Your task to perform on an android device: refresh tabs in the chrome app Image 0: 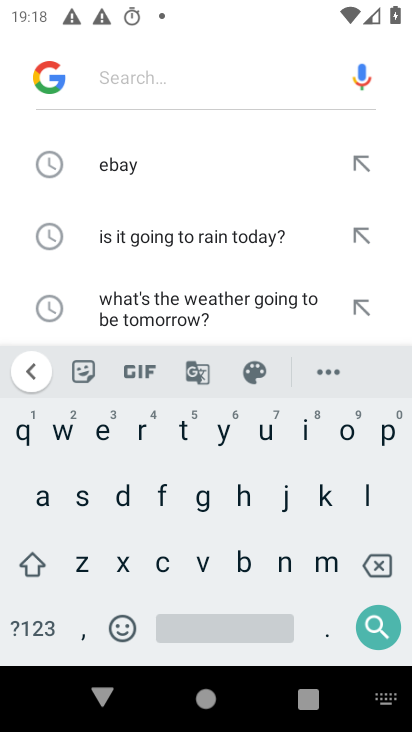
Step 0: press home button
Your task to perform on an android device: refresh tabs in the chrome app Image 1: 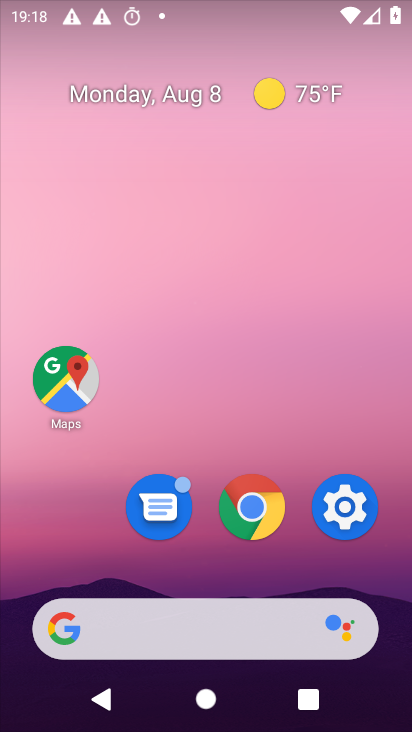
Step 1: drag from (249, 669) to (168, 145)
Your task to perform on an android device: refresh tabs in the chrome app Image 2: 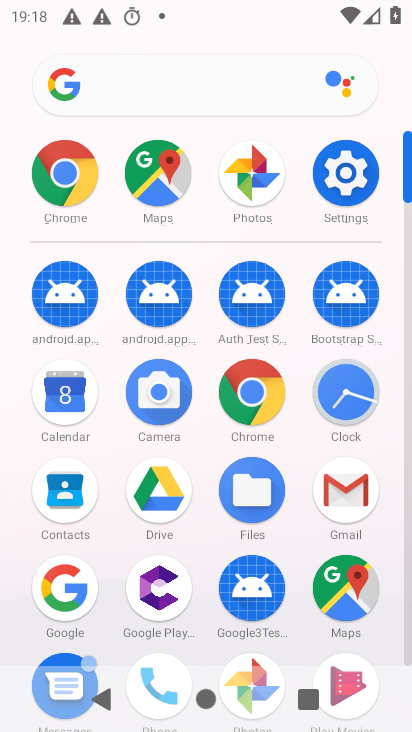
Step 2: click (84, 168)
Your task to perform on an android device: refresh tabs in the chrome app Image 3: 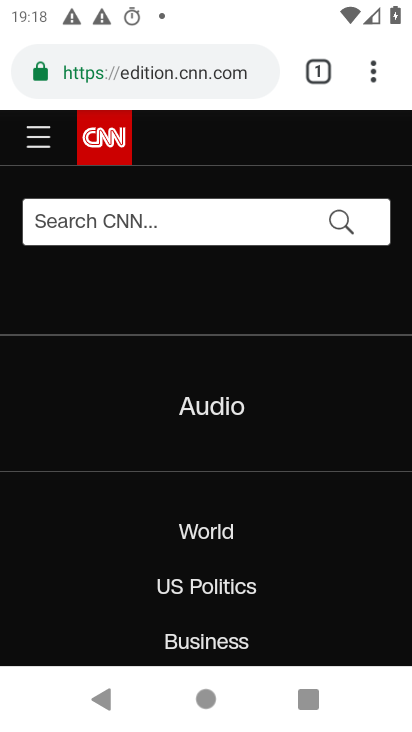
Step 3: click (368, 77)
Your task to perform on an android device: refresh tabs in the chrome app Image 4: 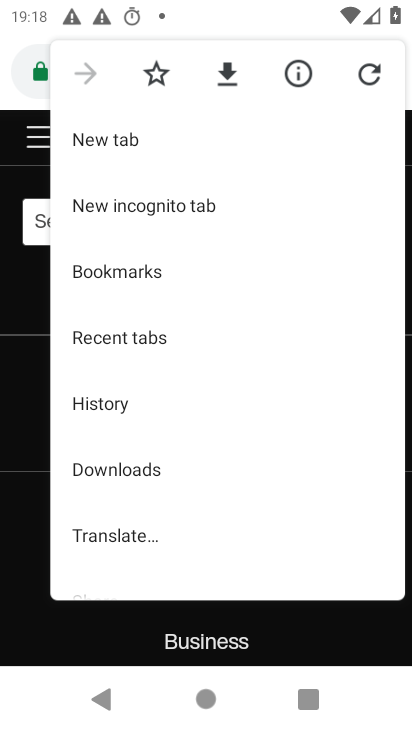
Step 4: click (371, 80)
Your task to perform on an android device: refresh tabs in the chrome app Image 5: 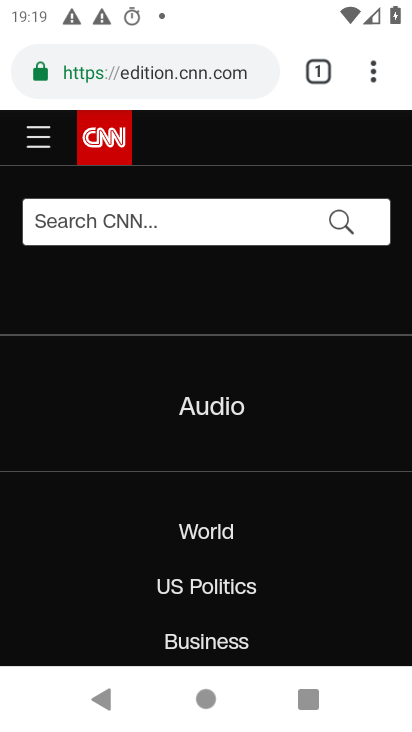
Step 5: task complete